Your task to perform on an android device: change keyboard looks Image 0: 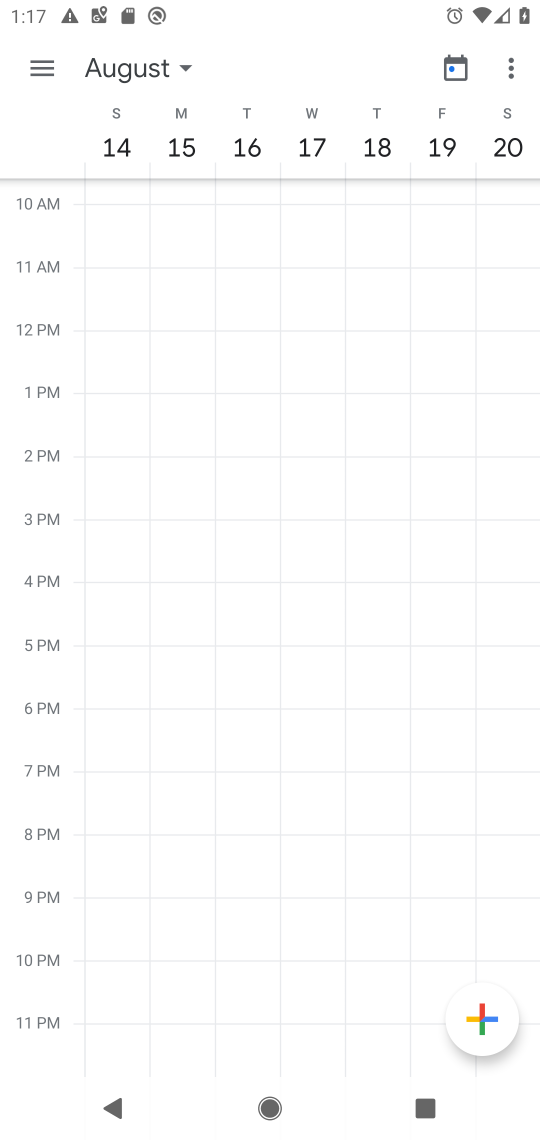
Step 0: press home button
Your task to perform on an android device: change keyboard looks Image 1: 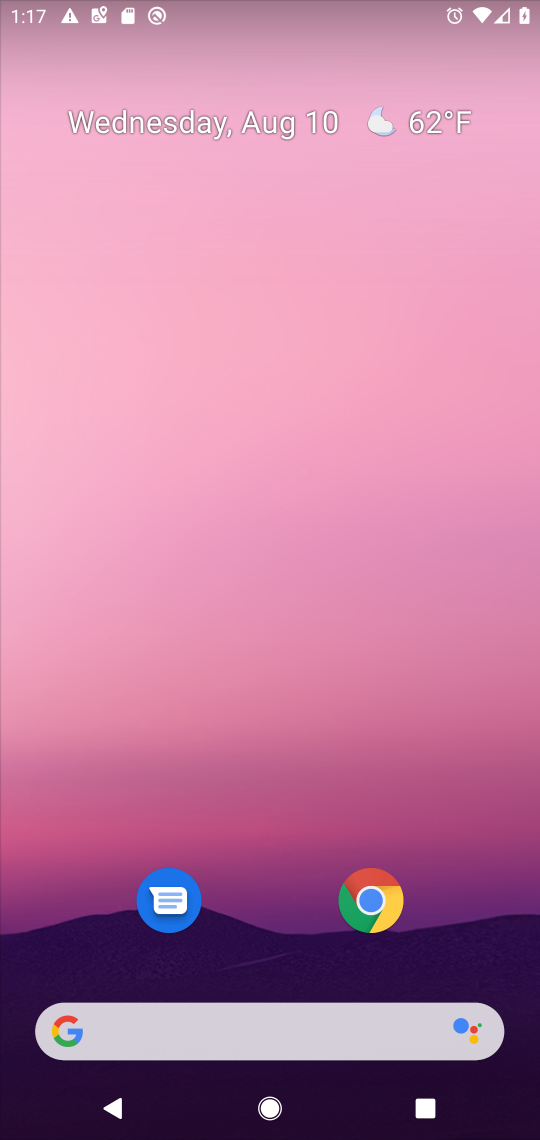
Step 1: drag from (268, 865) to (258, 0)
Your task to perform on an android device: change keyboard looks Image 2: 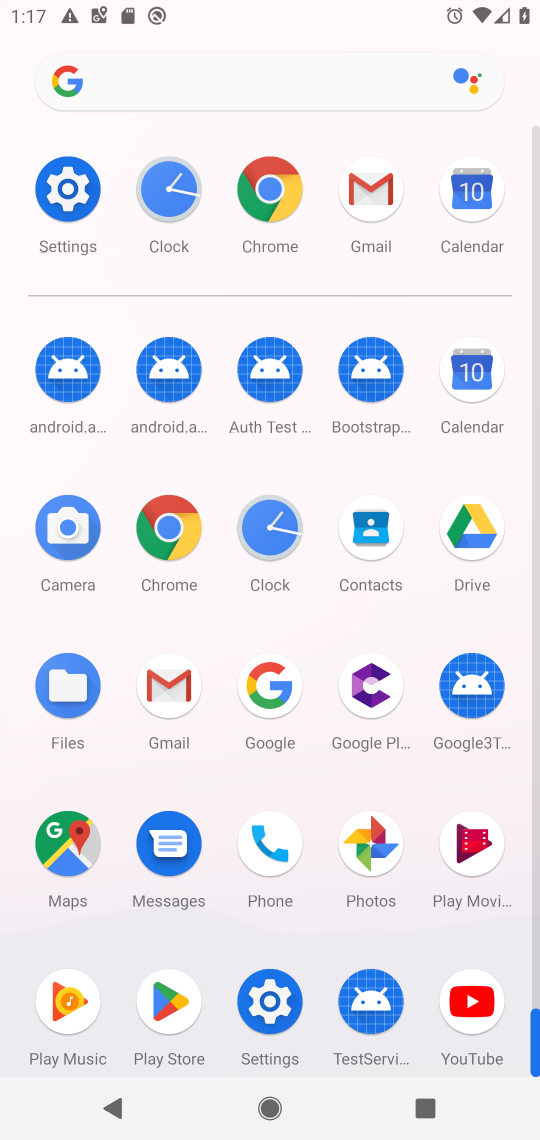
Step 2: click (70, 173)
Your task to perform on an android device: change keyboard looks Image 3: 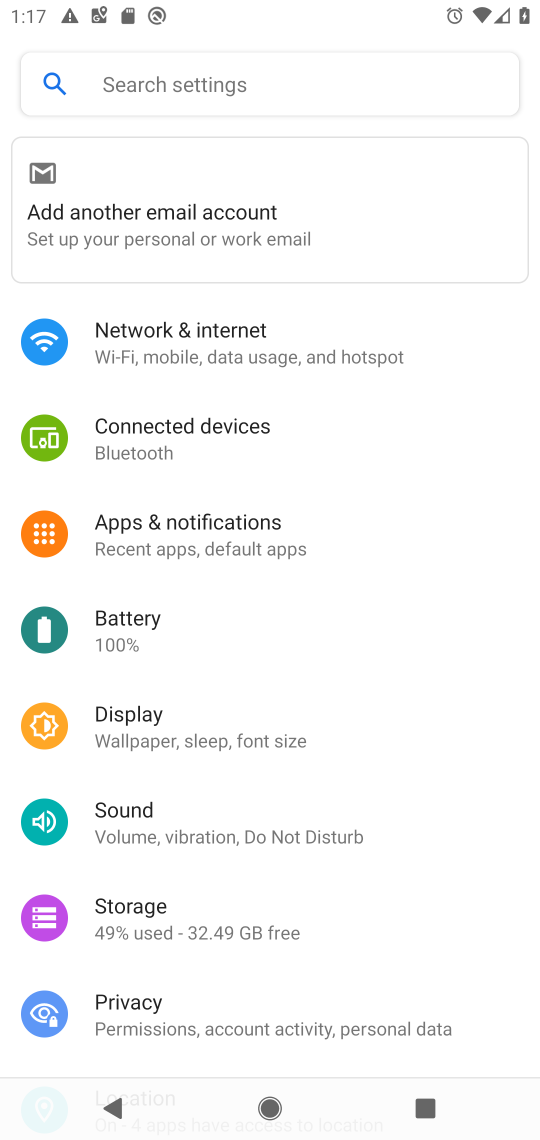
Step 3: drag from (311, 917) to (296, 74)
Your task to perform on an android device: change keyboard looks Image 4: 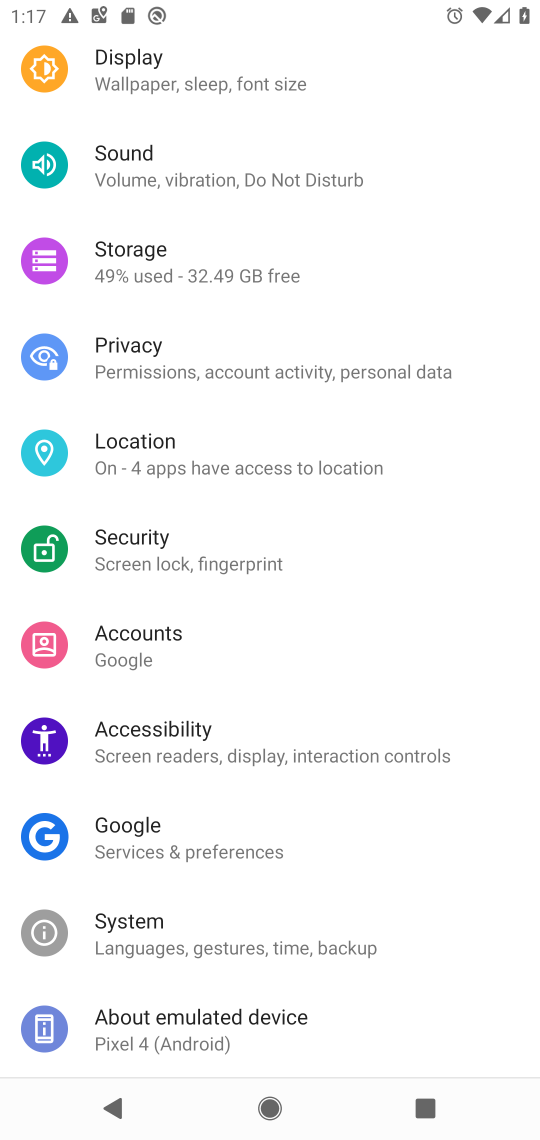
Step 4: click (243, 1020)
Your task to perform on an android device: change keyboard looks Image 5: 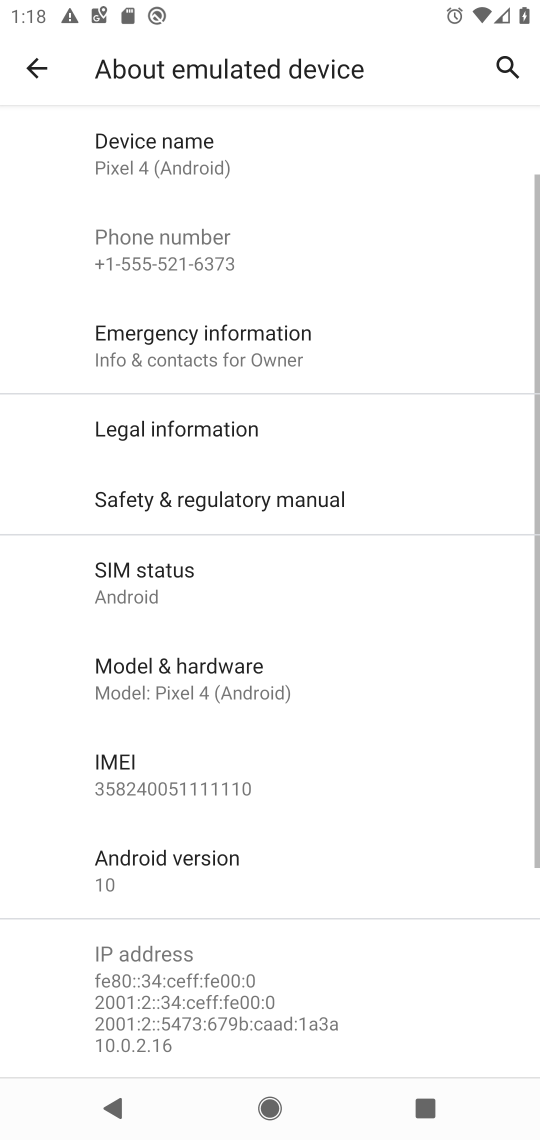
Step 5: click (48, 68)
Your task to perform on an android device: change keyboard looks Image 6: 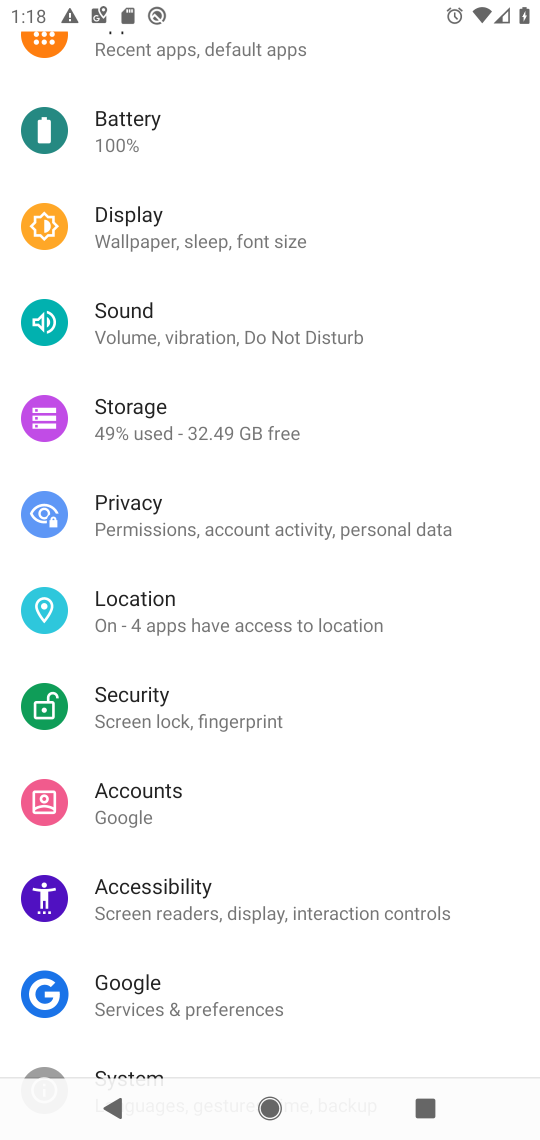
Step 6: drag from (265, 811) to (278, 589)
Your task to perform on an android device: change keyboard looks Image 7: 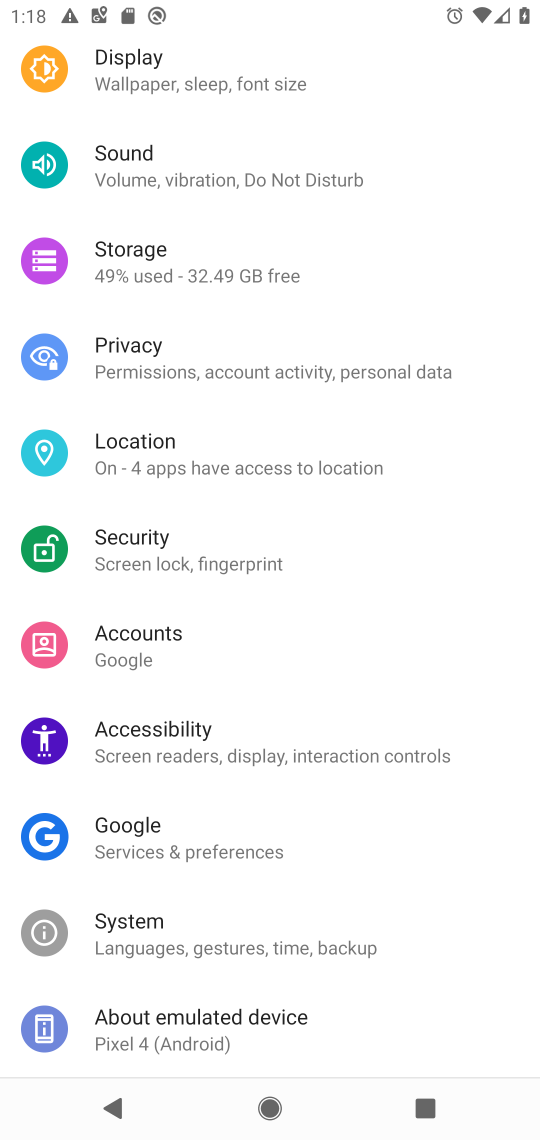
Step 7: click (239, 936)
Your task to perform on an android device: change keyboard looks Image 8: 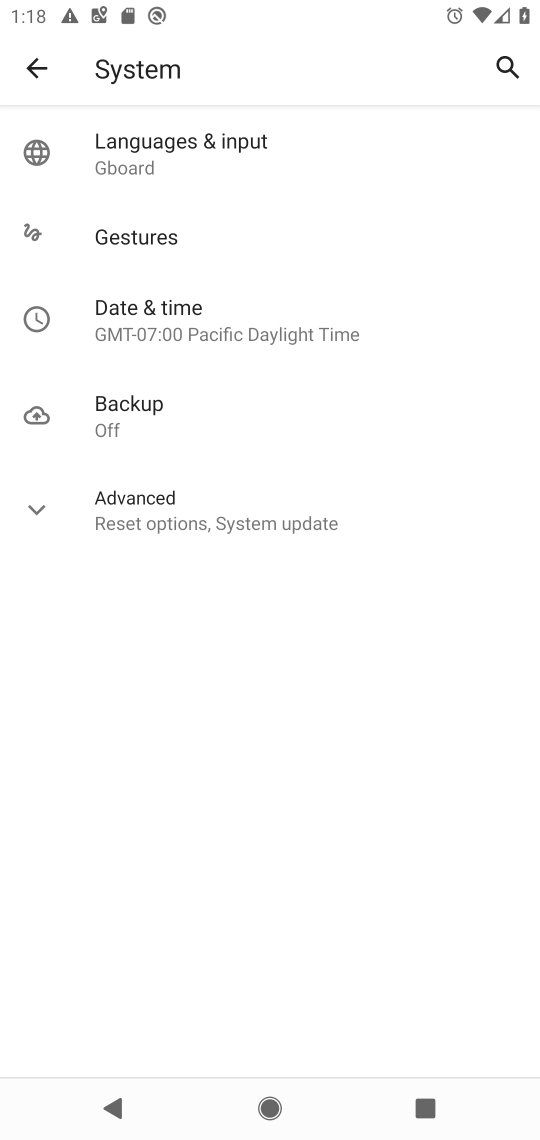
Step 8: click (250, 157)
Your task to perform on an android device: change keyboard looks Image 9: 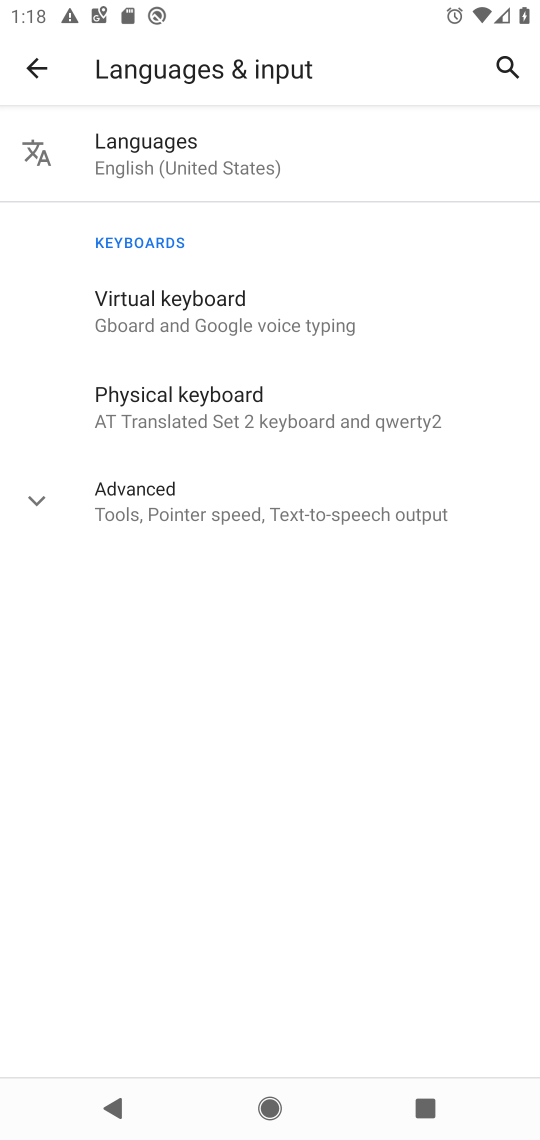
Step 9: click (258, 315)
Your task to perform on an android device: change keyboard looks Image 10: 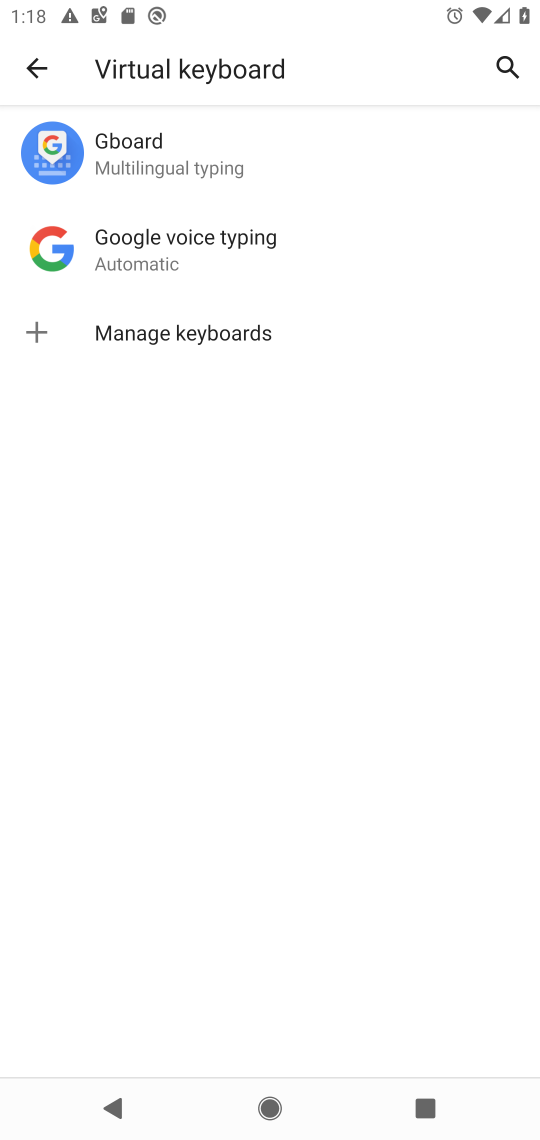
Step 10: click (236, 159)
Your task to perform on an android device: change keyboard looks Image 11: 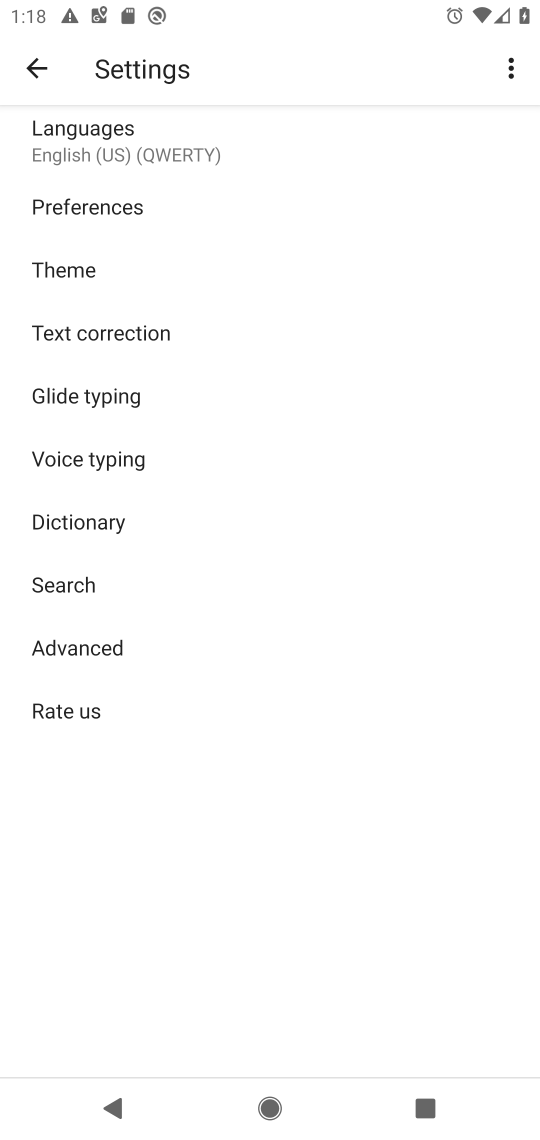
Step 11: click (94, 255)
Your task to perform on an android device: change keyboard looks Image 12: 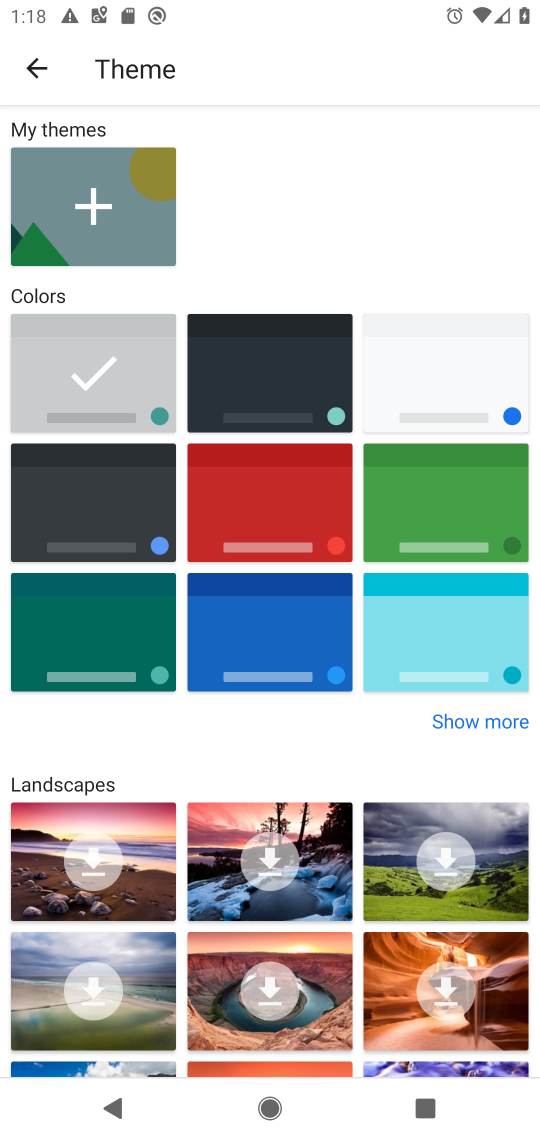
Step 12: click (273, 494)
Your task to perform on an android device: change keyboard looks Image 13: 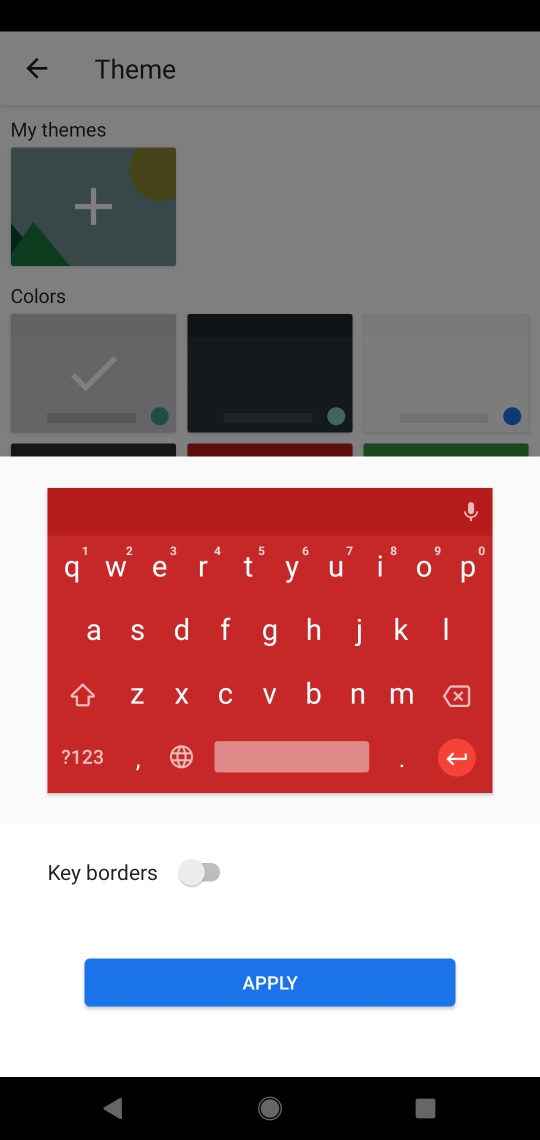
Step 13: click (216, 870)
Your task to perform on an android device: change keyboard looks Image 14: 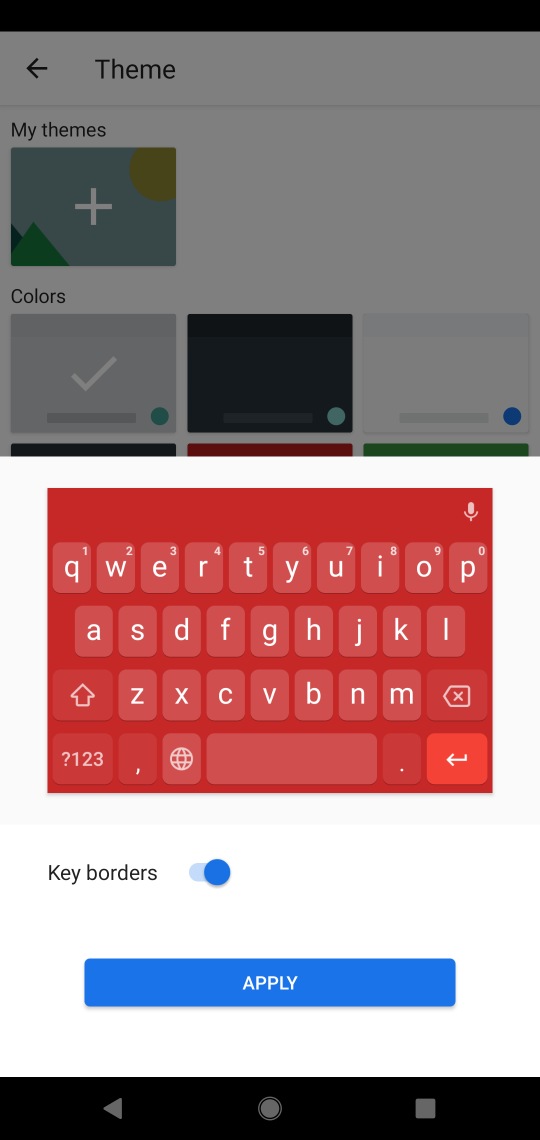
Step 14: click (241, 980)
Your task to perform on an android device: change keyboard looks Image 15: 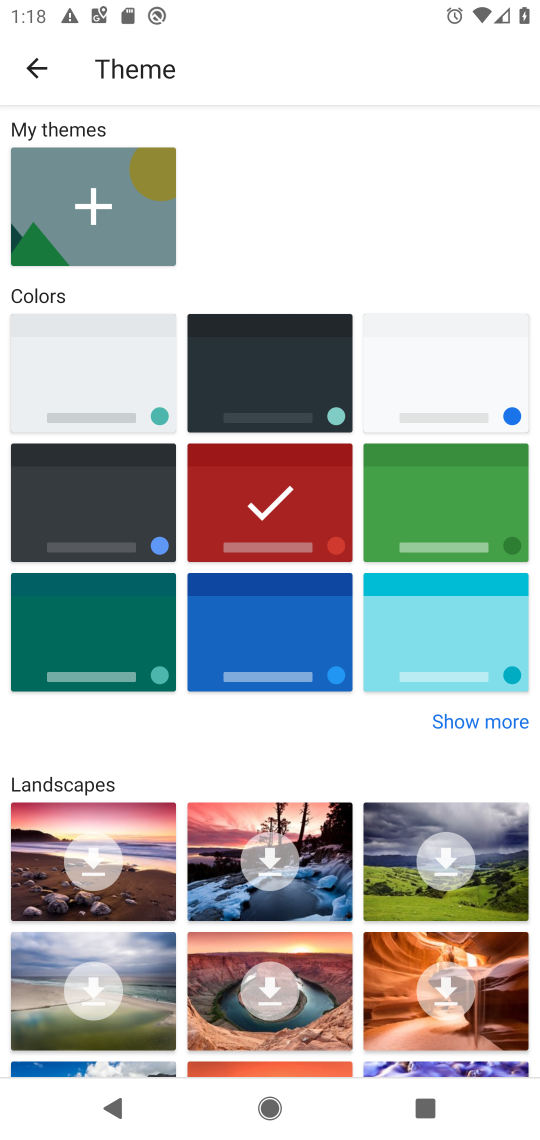
Step 15: task complete